Your task to perform on an android device: move an email to a new category in the gmail app Image 0: 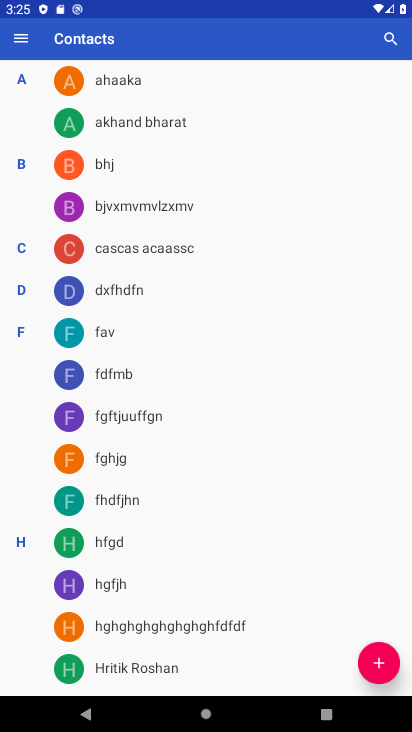
Step 0: press home button
Your task to perform on an android device: move an email to a new category in the gmail app Image 1: 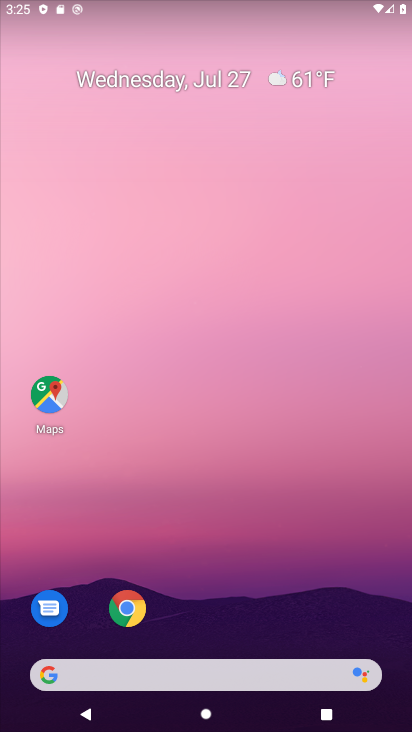
Step 1: drag from (235, 715) to (168, 55)
Your task to perform on an android device: move an email to a new category in the gmail app Image 2: 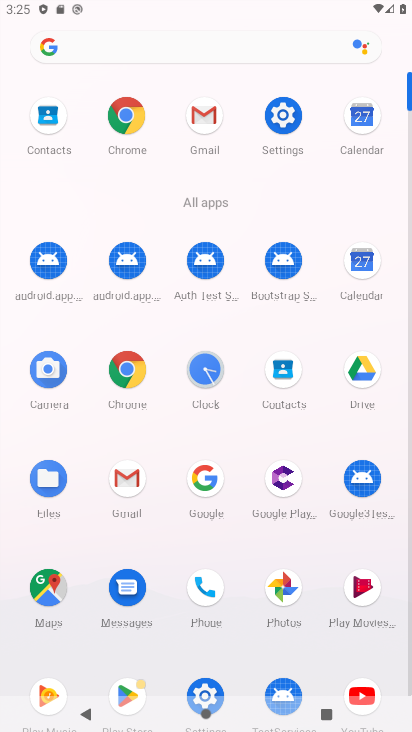
Step 2: click (127, 476)
Your task to perform on an android device: move an email to a new category in the gmail app Image 3: 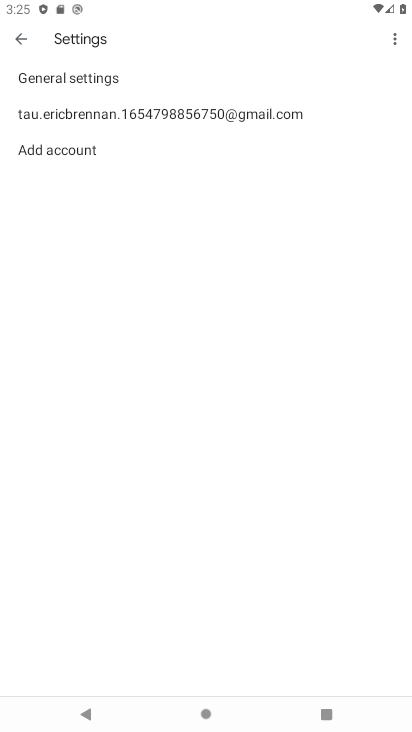
Step 3: click (21, 37)
Your task to perform on an android device: move an email to a new category in the gmail app Image 4: 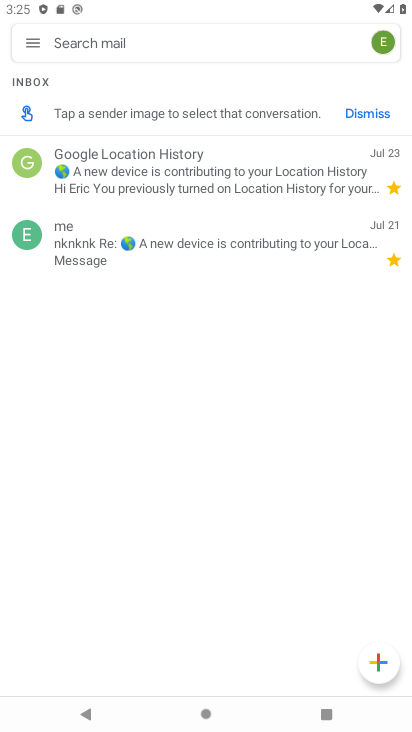
Step 4: click (197, 173)
Your task to perform on an android device: move an email to a new category in the gmail app Image 5: 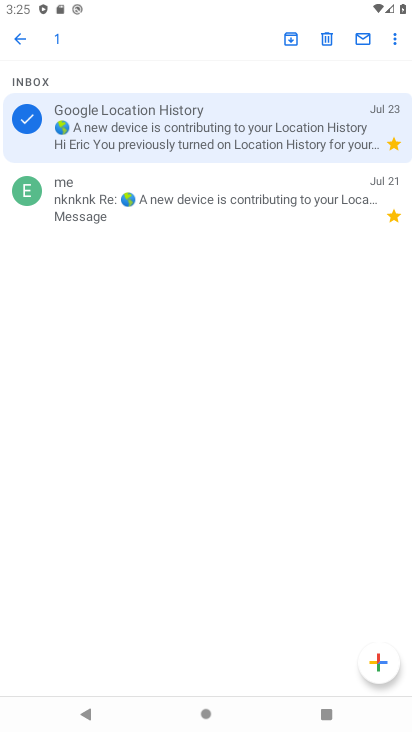
Step 5: click (396, 39)
Your task to perform on an android device: move an email to a new category in the gmail app Image 6: 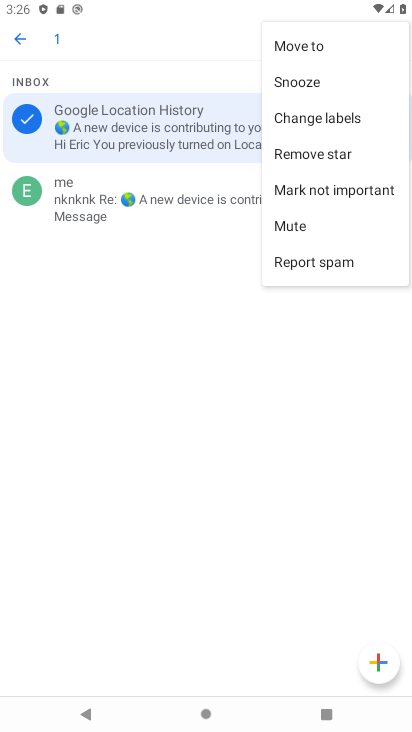
Step 6: click (297, 48)
Your task to perform on an android device: move an email to a new category in the gmail app Image 7: 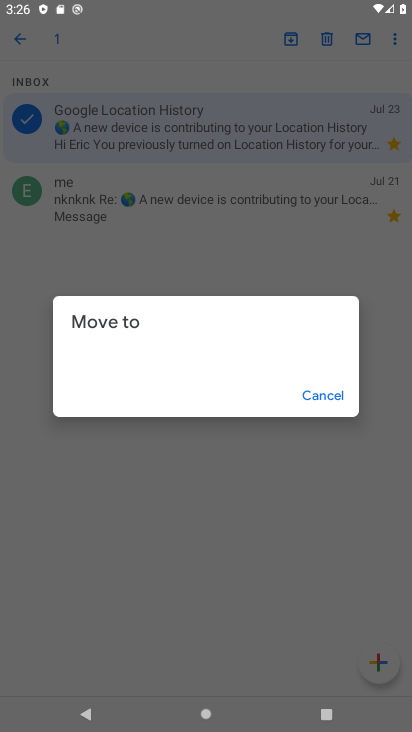
Step 7: click (332, 390)
Your task to perform on an android device: move an email to a new category in the gmail app Image 8: 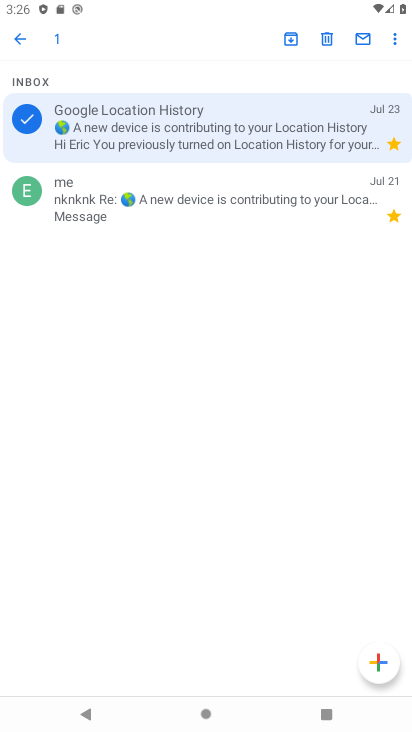
Step 8: task complete